Your task to perform on an android device: see tabs open on other devices in the chrome app Image 0: 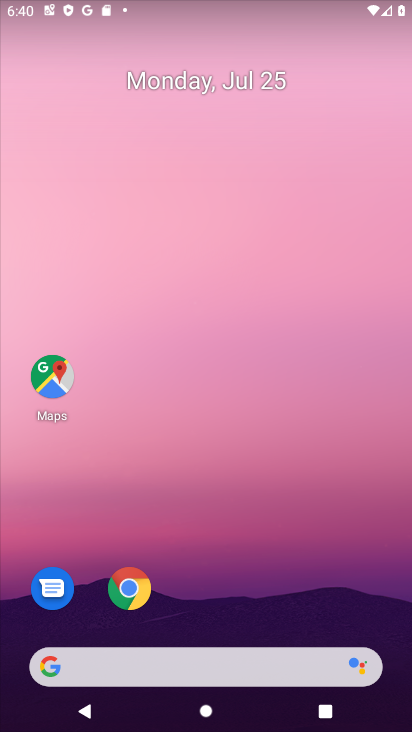
Step 0: drag from (232, 570) to (252, 270)
Your task to perform on an android device: see tabs open on other devices in the chrome app Image 1: 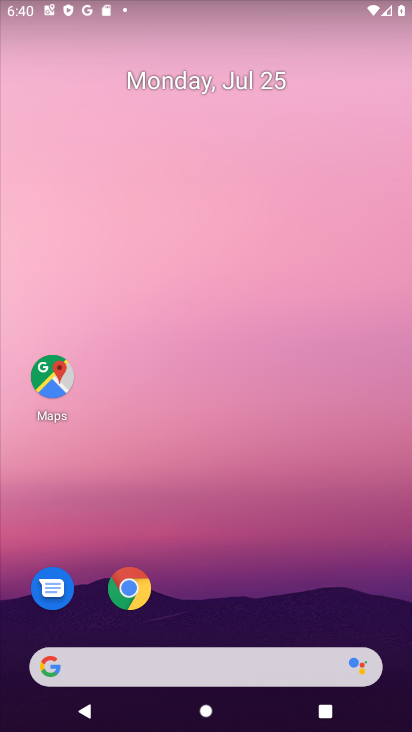
Step 1: drag from (308, 565) to (333, 217)
Your task to perform on an android device: see tabs open on other devices in the chrome app Image 2: 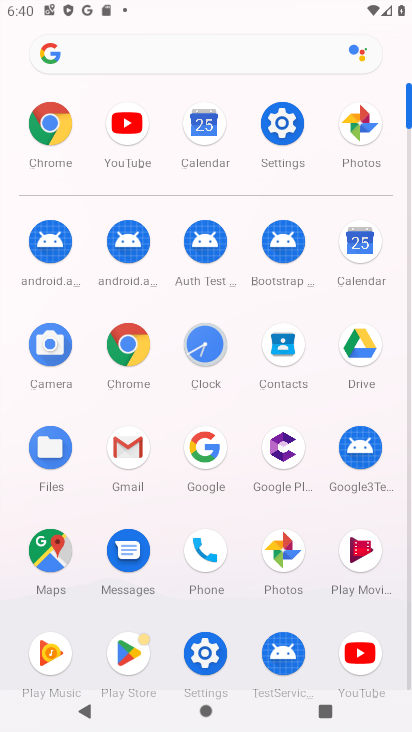
Step 2: click (121, 350)
Your task to perform on an android device: see tabs open on other devices in the chrome app Image 3: 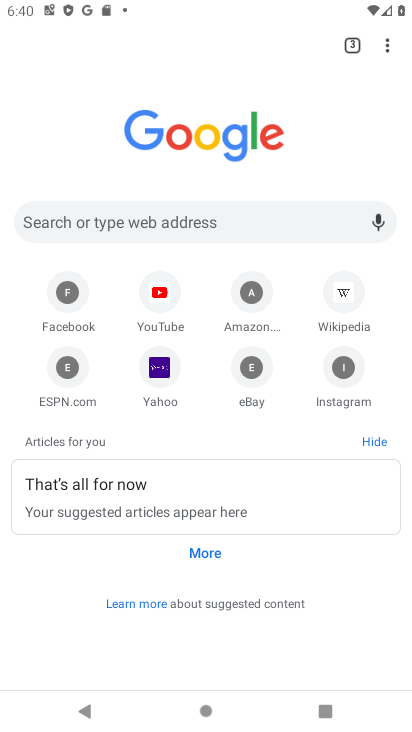
Step 3: click (397, 61)
Your task to perform on an android device: see tabs open on other devices in the chrome app Image 4: 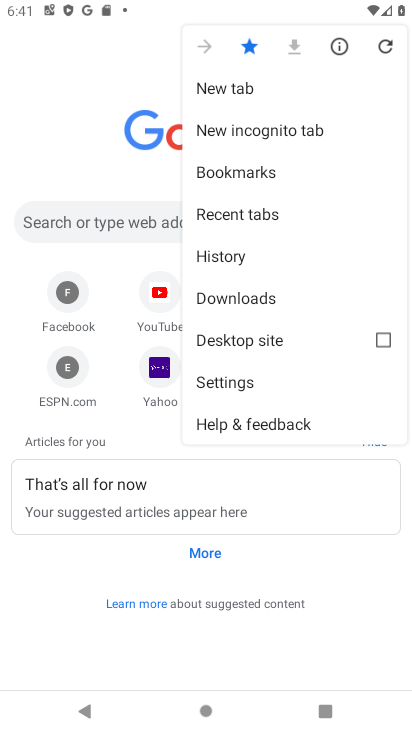
Step 4: click (249, 386)
Your task to perform on an android device: see tabs open on other devices in the chrome app Image 5: 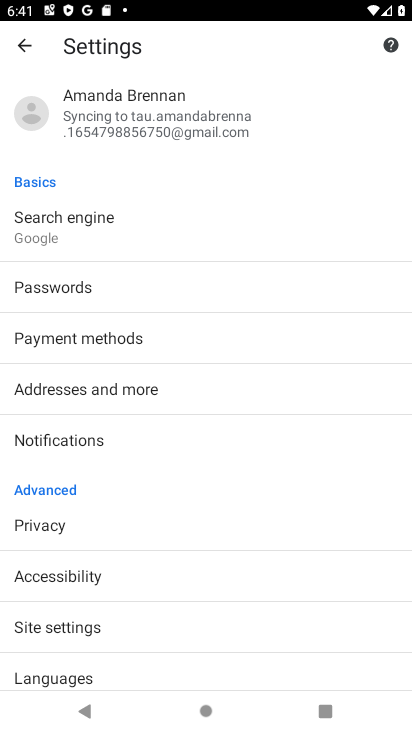
Step 5: task complete